Your task to perform on an android device: Search for vegetarian restaurants on Maps Image 0: 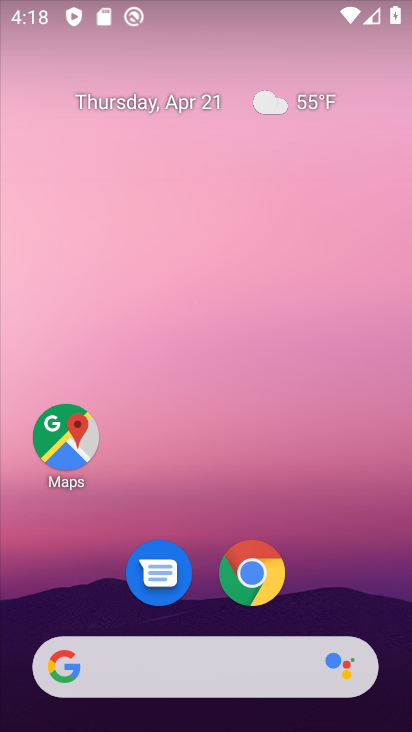
Step 0: click (57, 432)
Your task to perform on an android device: Search for vegetarian restaurants on Maps Image 1: 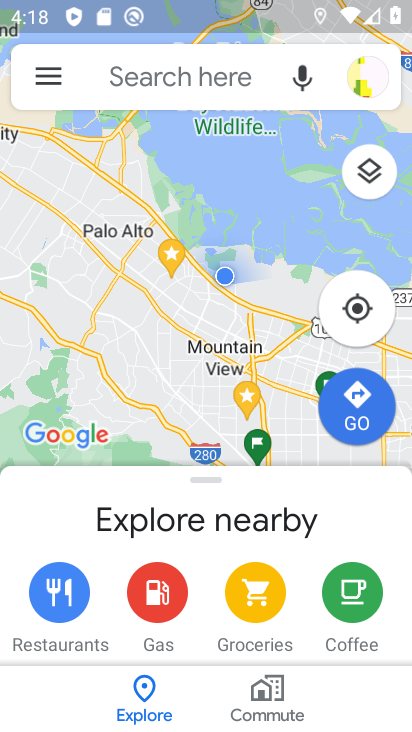
Step 1: click (149, 69)
Your task to perform on an android device: Search for vegetarian restaurants on Maps Image 2: 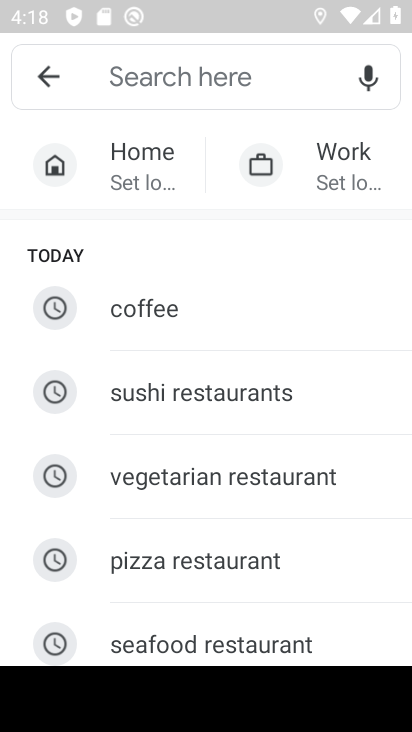
Step 2: type "vegetarian restaurants"
Your task to perform on an android device: Search for vegetarian restaurants on Maps Image 3: 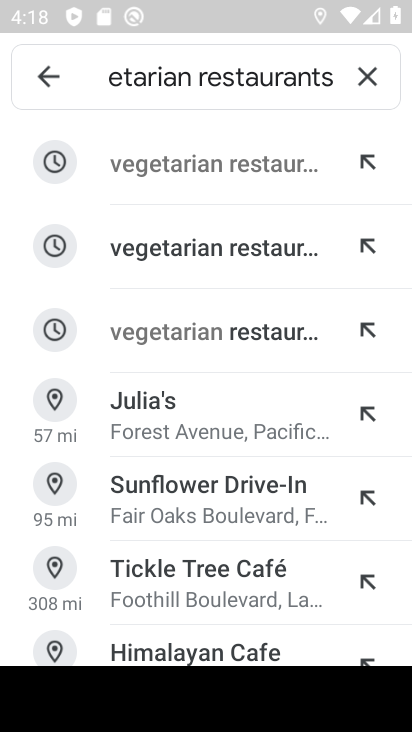
Step 3: click (182, 165)
Your task to perform on an android device: Search for vegetarian restaurants on Maps Image 4: 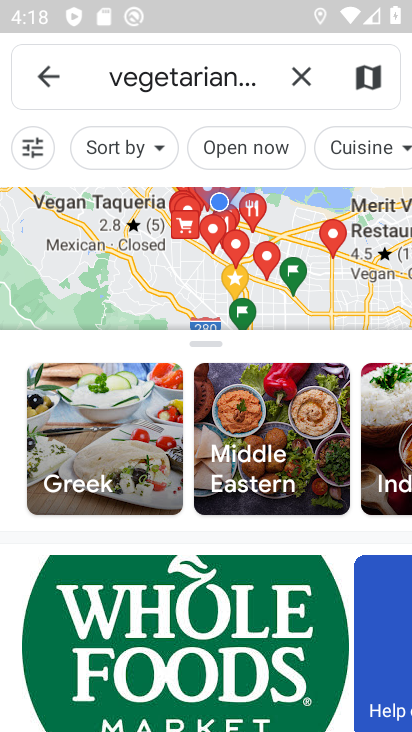
Step 4: task complete